Your task to perform on an android device: Open the calendar app, open the side menu, and click the "Day" option Image 0: 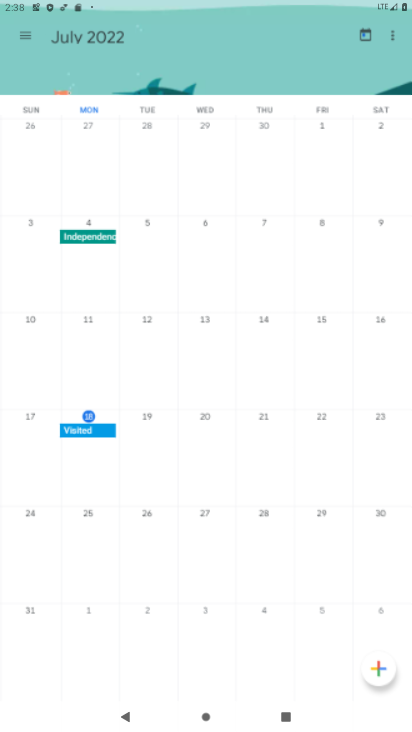
Step 0: drag from (148, 680) to (196, 167)
Your task to perform on an android device: Open the calendar app, open the side menu, and click the "Day" option Image 1: 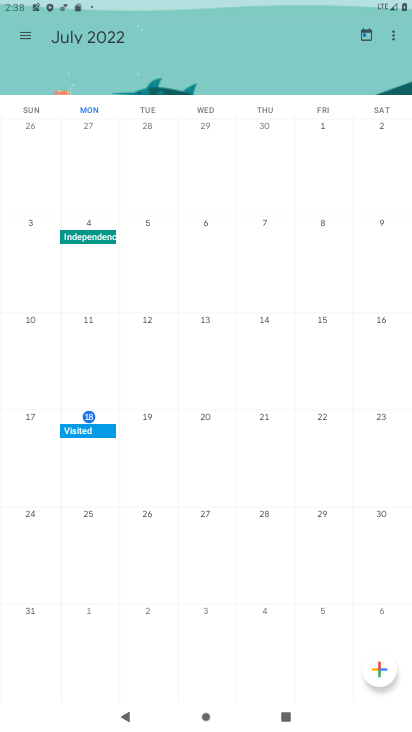
Step 1: press home button
Your task to perform on an android device: Open the calendar app, open the side menu, and click the "Day" option Image 2: 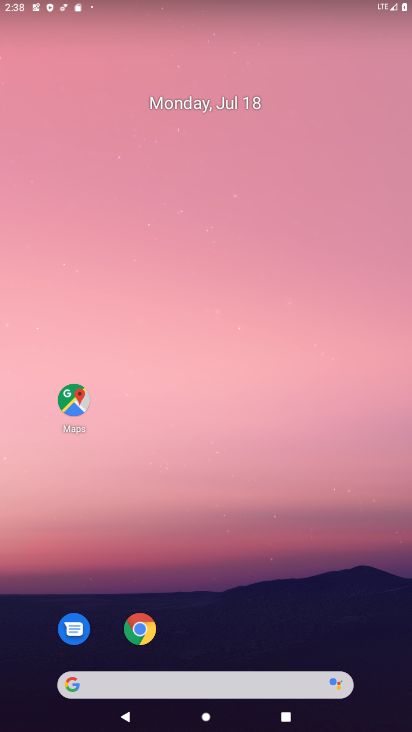
Step 2: drag from (182, 699) to (228, 219)
Your task to perform on an android device: Open the calendar app, open the side menu, and click the "Day" option Image 3: 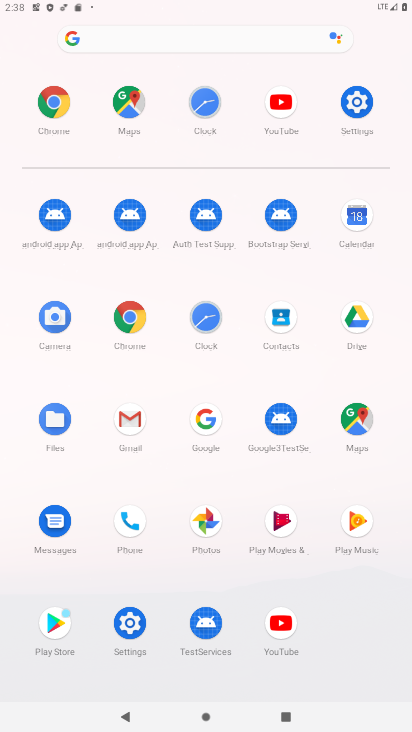
Step 3: click (351, 217)
Your task to perform on an android device: Open the calendar app, open the side menu, and click the "Day" option Image 4: 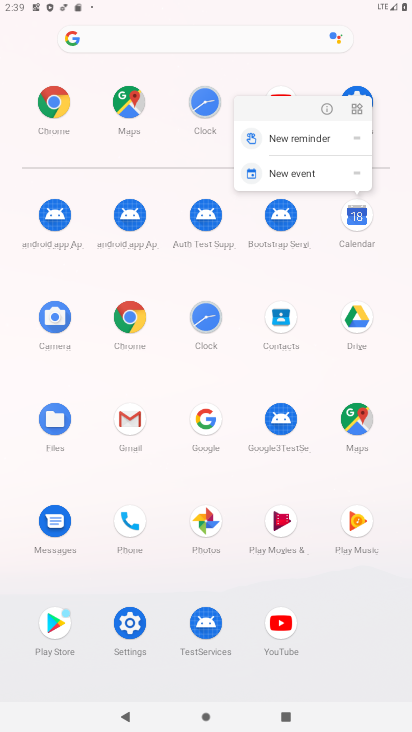
Step 4: click (358, 222)
Your task to perform on an android device: Open the calendar app, open the side menu, and click the "Day" option Image 5: 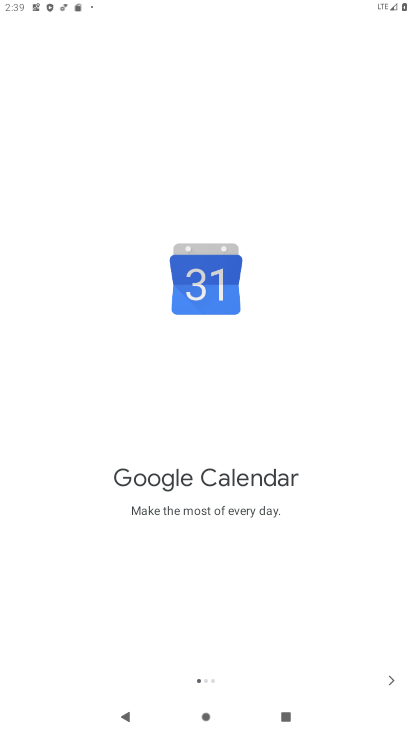
Step 5: click (387, 678)
Your task to perform on an android device: Open the calendar app, open the side menu, and click the "Day" option Image 6: 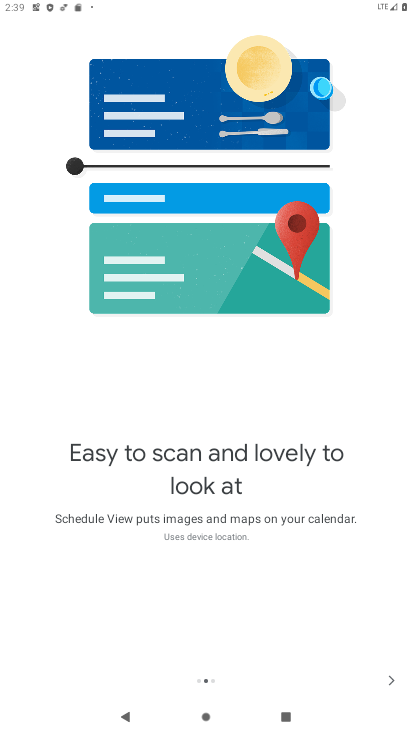
Step 6: click (387, 678)
Your task to perform on an android device: Open the calendar app, open the side menu, and click the "Day" option Image 7: 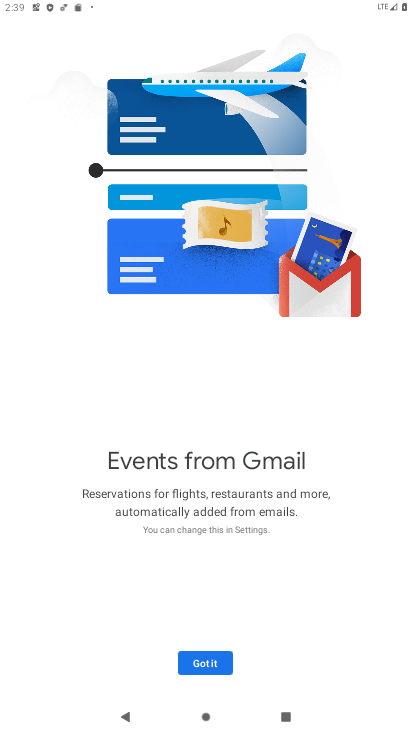
Step 7: click (213, 659)
Your task to perform on an android device: Open the calendar app, open the side menu, and click the "Day" option Image 8: 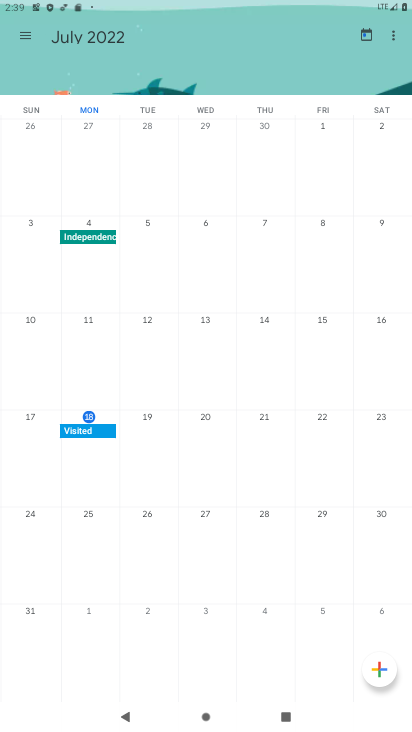
Step 8: click (20, 29)
Your task to perform on an android device: Open the calendar app, open the side menu, and click the "Day" option Image 9: 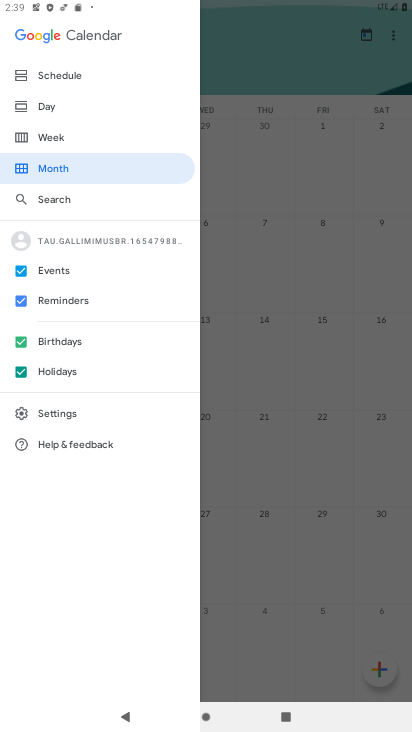
Step 9: click (36, 106)
Your task to perform on an android device: Open the calendar app, open the side menu, and click the "Day" option Image 10: 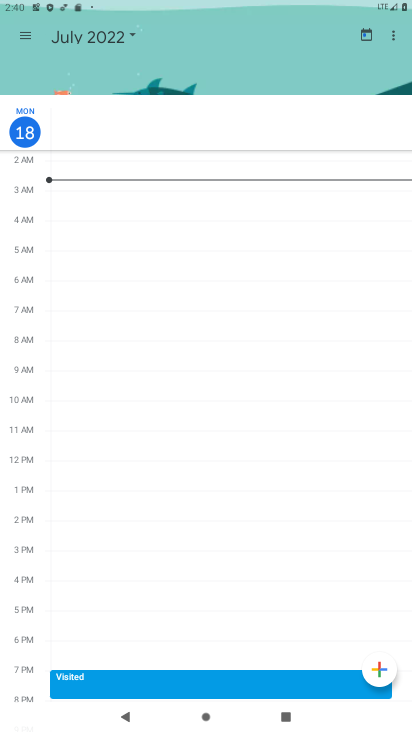
Step 10: task complete